Your task to perform on an android device: toggle sleep mode Image 0: 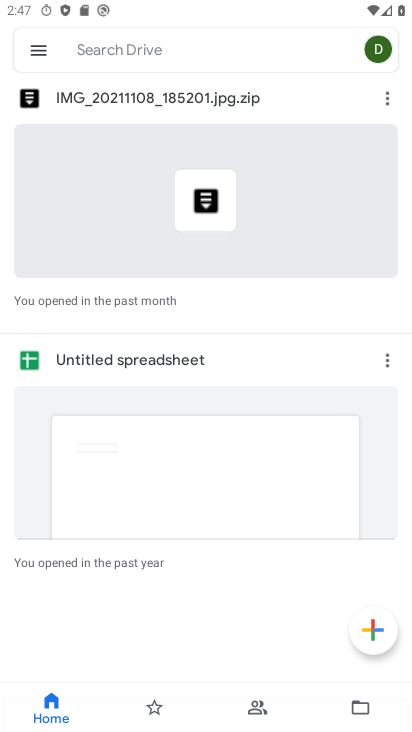
Step 0: press home button
Your task to perform on an android device: toggle sleep mode Image 1: 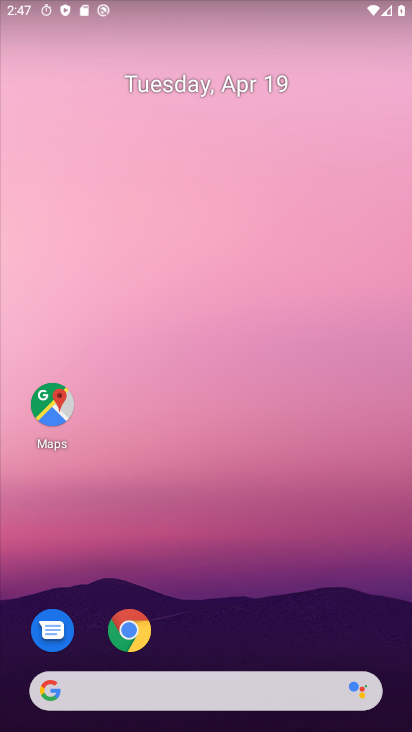
Step 1: drag from (286, 615) to (290, 122)
Your task to perform on an android device: toggle sleep mode Image 2: 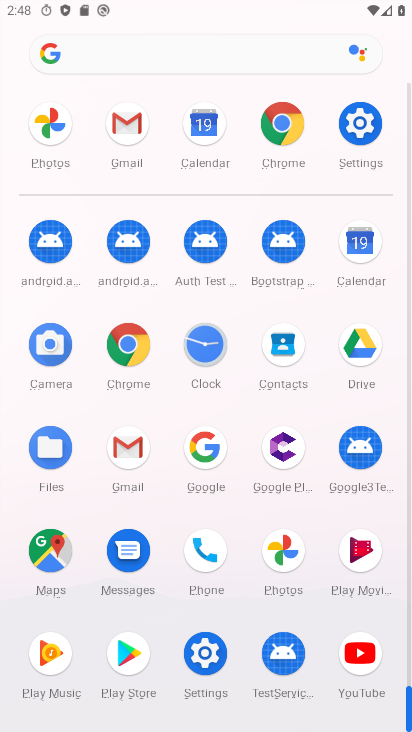
Step 2: click (360, 128)
Your task to perform on an android device: toggle sleep mode Image 3: 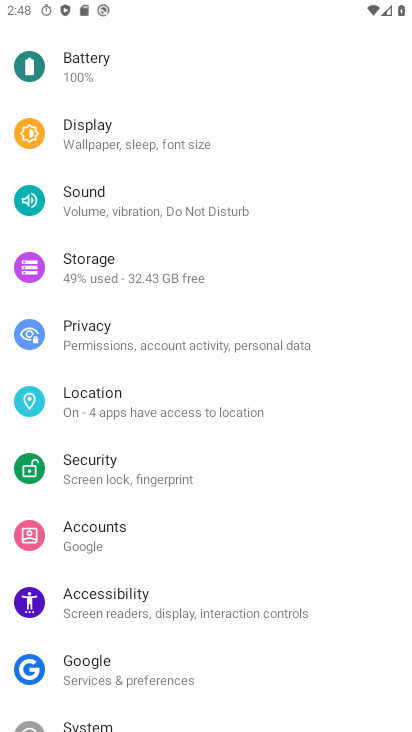
Step 3: click (140, 141)
Your task to perform on an android device: toggle sleep mode Image 4: 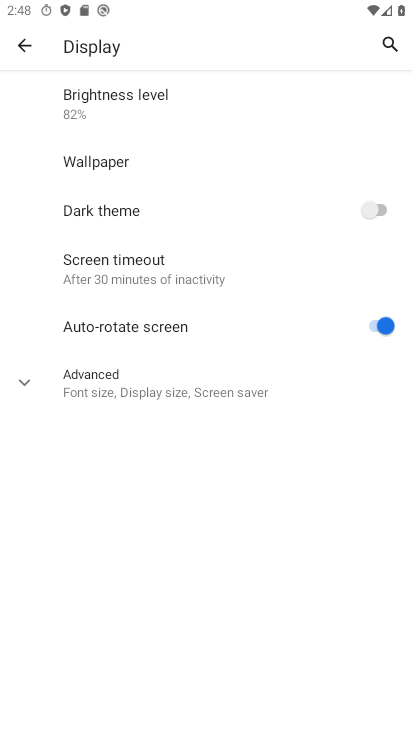
Step 4: click (163, 389)
Your task to perform on an android device: toggle sleep mode Image 5: 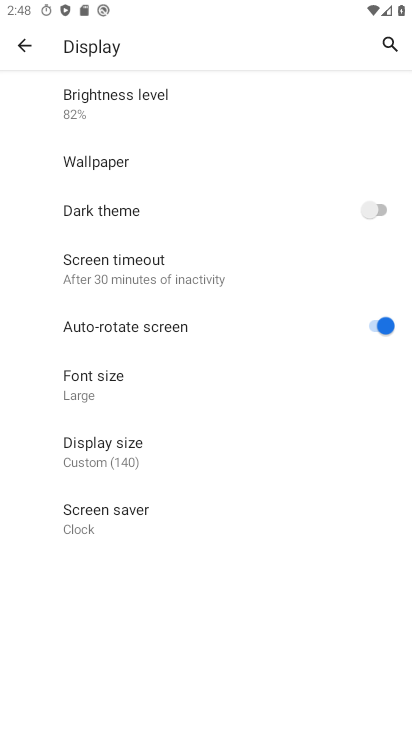
Step 5: task complete